Your task to perform on an android device: Open ESPN.com Image 0: 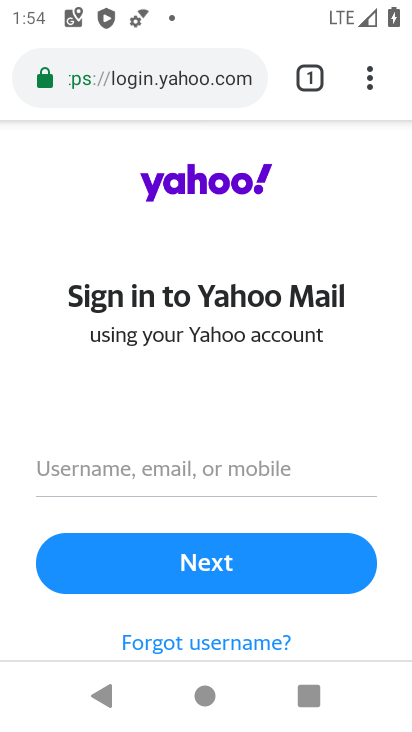
Step 0: press home button
Your task to perform on an android device: Open ESPN.com Image 1: 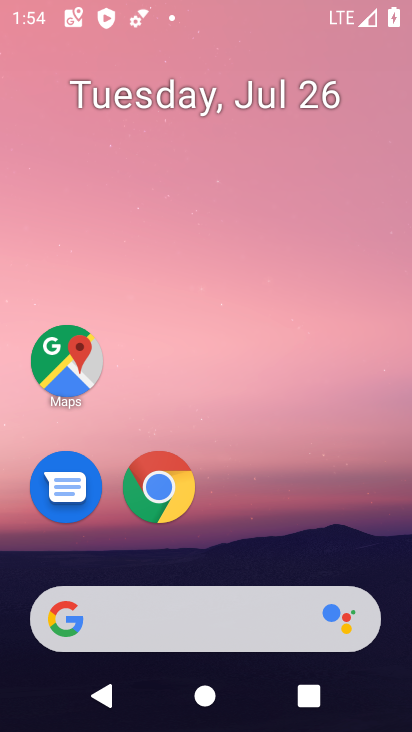
Step 1: drag from (222, 588) to (316, 64)
Your task to perform on an android device: Open ESPN.com Image 2: 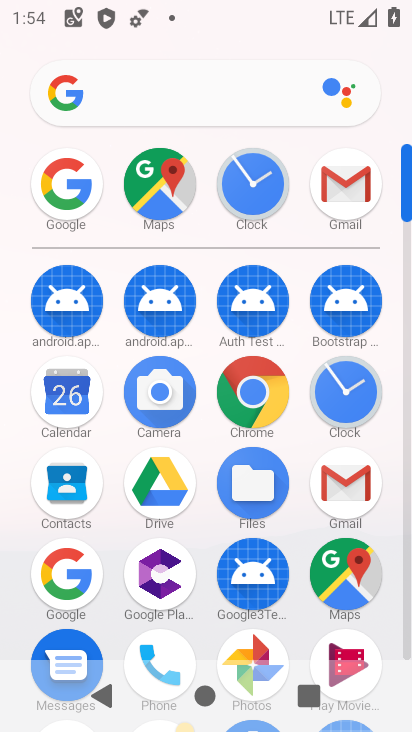
Step 2: click (86, 585)
Your task to perform on an android device: Open ESPN.com Image 3: 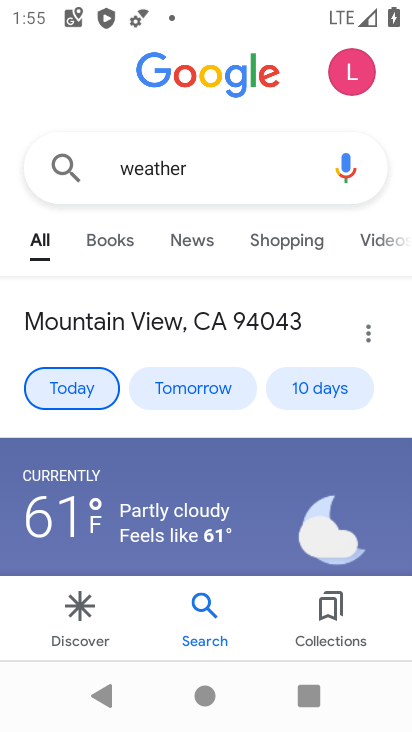
Step 3: press home button
Your task to perform on an android device: Open ESPN.com Image 4: 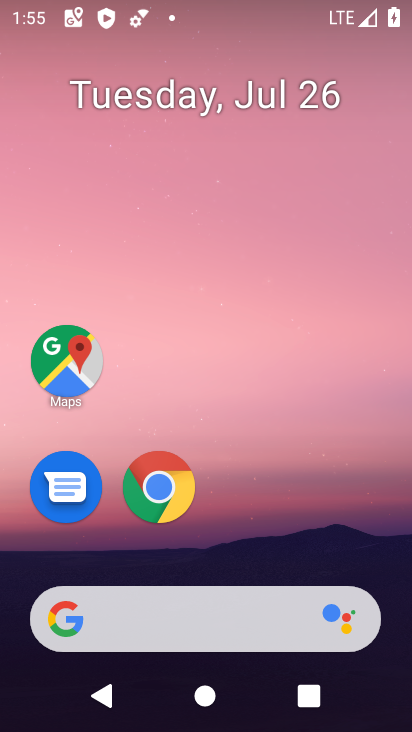
Step 4: click (145, 499)
Your task to perform on an android device: Open ESPN.com Image 5: 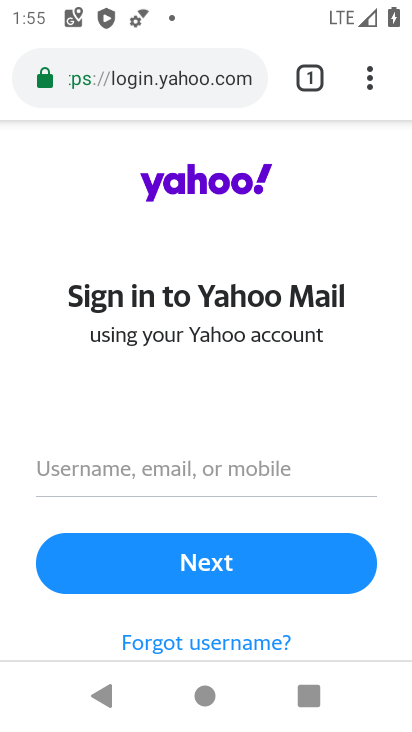
Step 5: click (233, 76)
Your task to perform on an android device: Open ESPN.com Image 6: 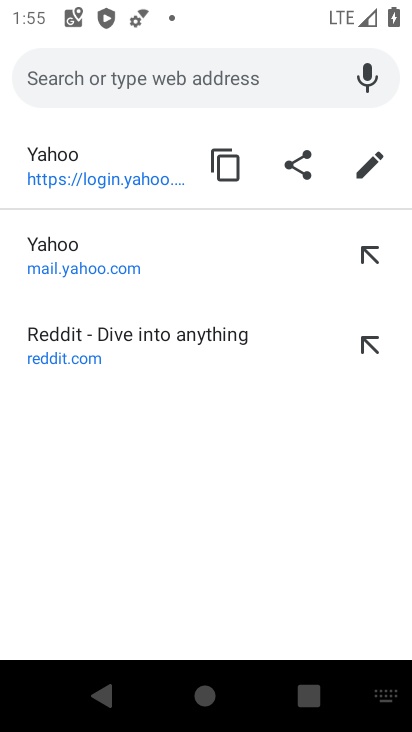
Step 6: type "espn"
Your task to perform on an android device: Open ESPN.com Image 7: 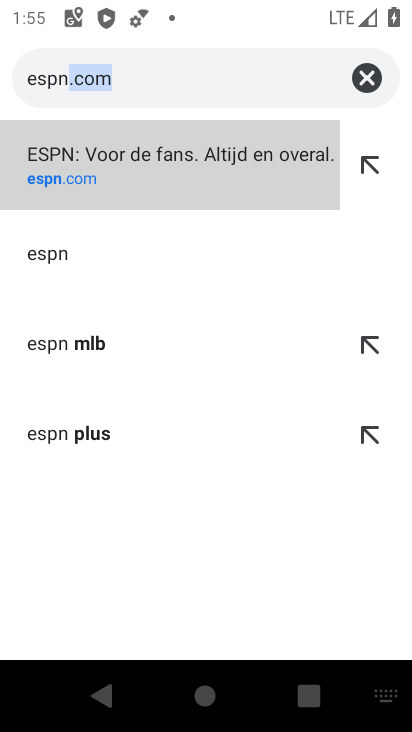
Step 7: click (153, 186)
Your task to perform on an android device: Open ESPN.com Image 8: 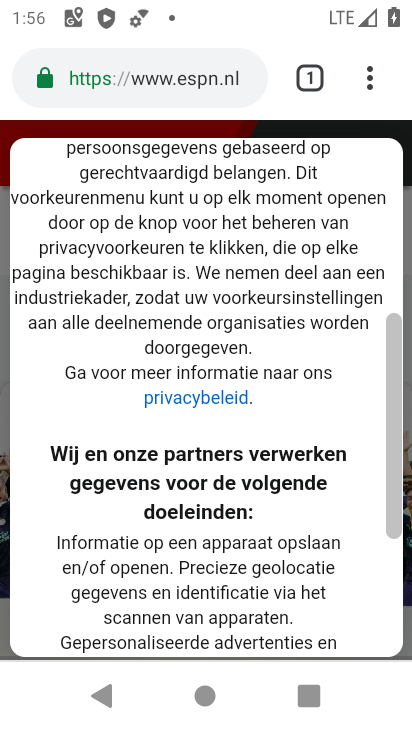
Step 8: task complete